Your task to perform on an android device: Check the news Image 0: 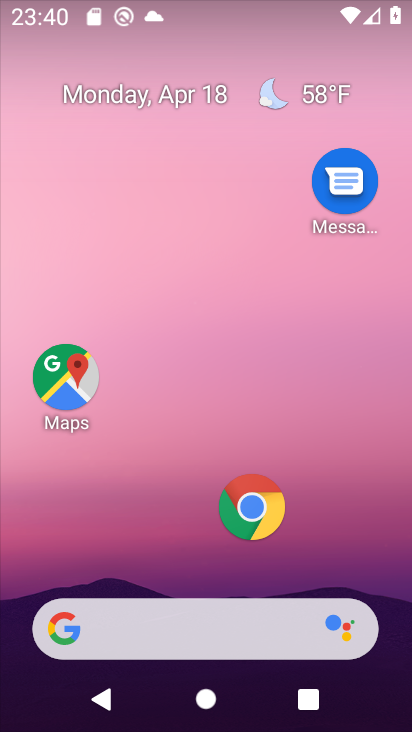
Step 0: drag from (180, 517) to (235, 6)
Your task to perform on an android device: Check the news Image 1: 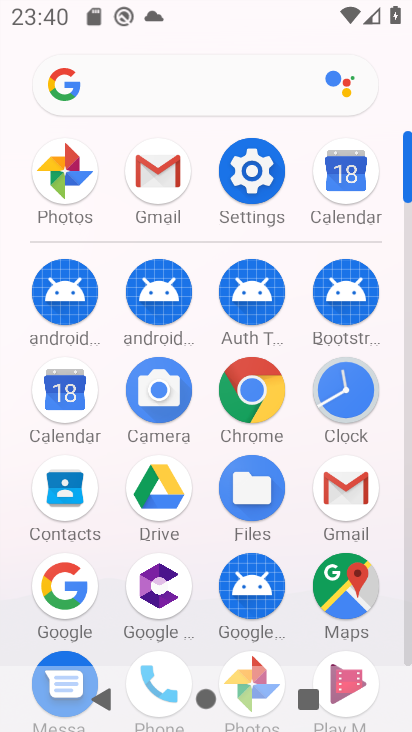
Step 1: click (181, 86)
Your task to perform on an android device: Check the news Image 2: 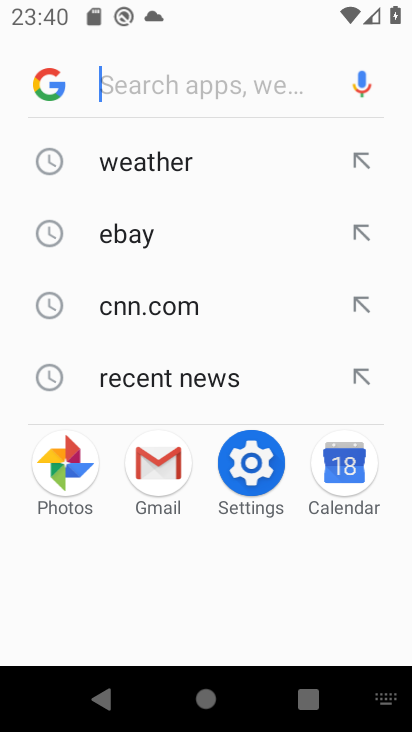
Step 2: type "news"
Your task to perform on an android device: Check the news Image 3: 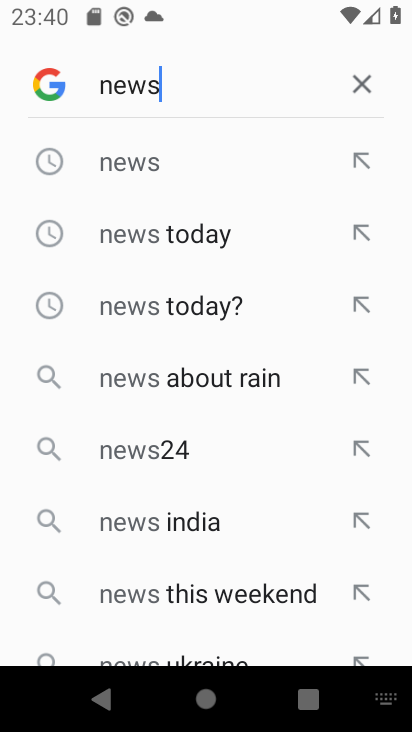
Step 3: click (171, 163)
Your task to perform on an android device: Check the news Image 4: 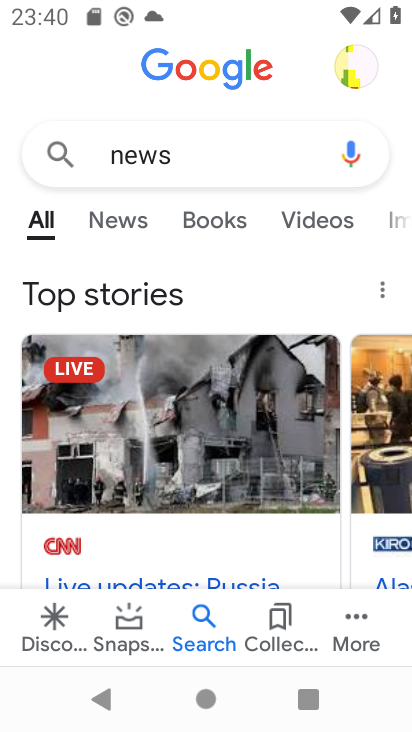
Step 4: task complete